Your task to perform on an android device: turn off priority inbox in the gmail app Image 0: 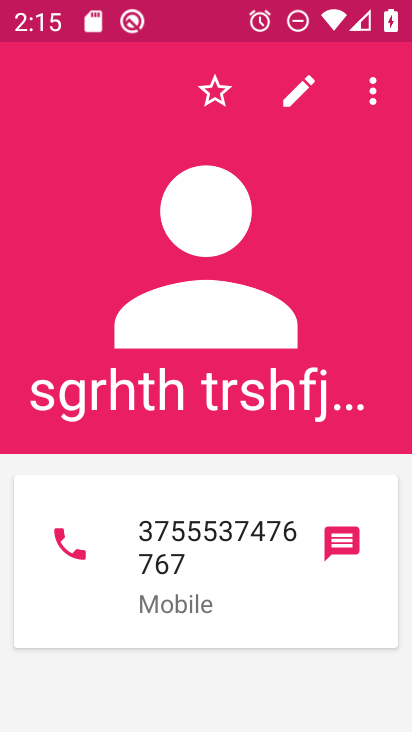
Step 0: press home button
Your task to perform on an android device: turn off priority inbox in the gmail app Image 1: 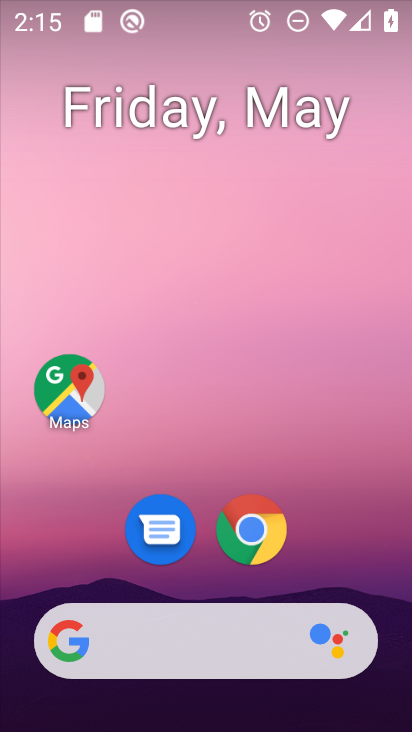
Step 1: drag from (381, 648) to (343, 194)
Your task to perform on an android device: turn off priority inbox in the gmail app Image 2: 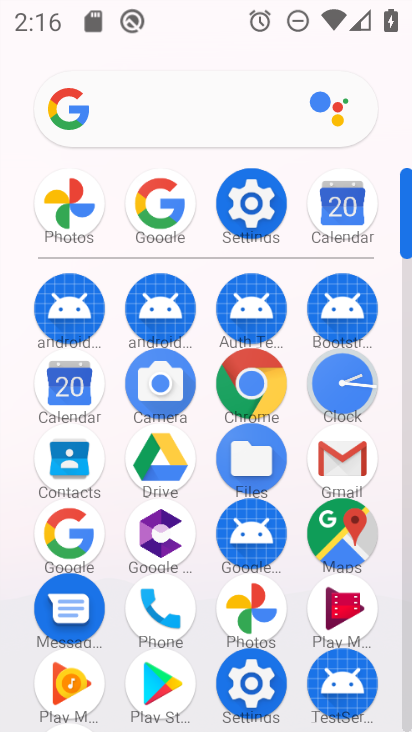
Step 2: click (332, 453)
Your task to perform on an android device: turn off priority inbox in the gmail app Image 3: 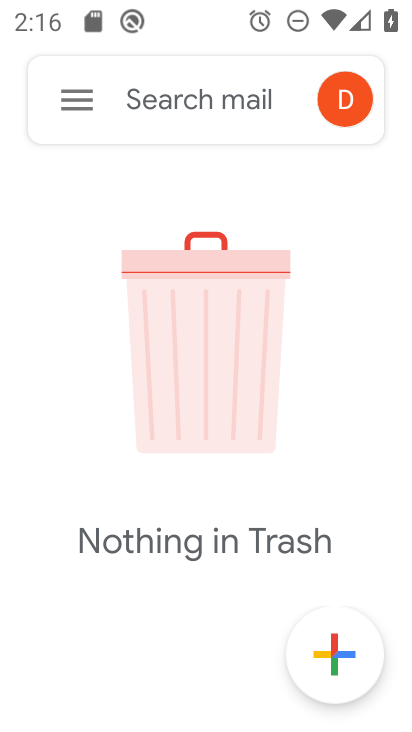
Step 3: click (56, 100)
Your task to perform on an android device: turn off priority inbox in the gmail app Image 4: 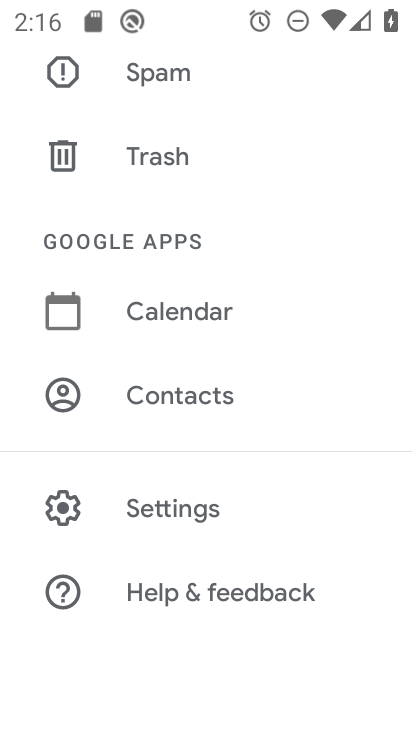
Step 4: drag from (330, 119) to (373, 496)
Your task to perform on an android device: turn off priority inbox in the gmail app Image 5: 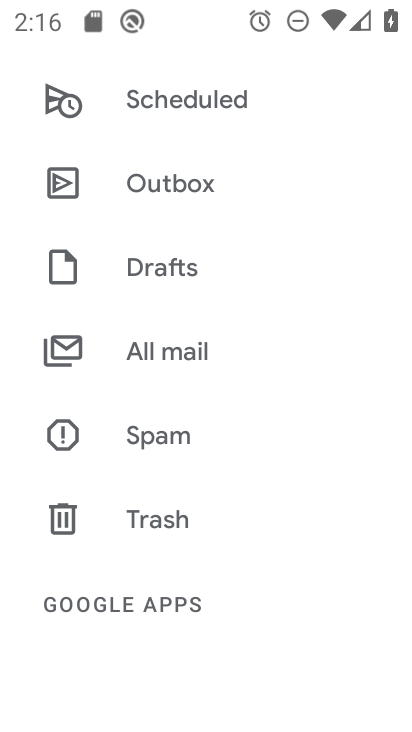
Step 5: drag from (299, 180) to (330, 555)
Your task to perform on an android device: turn off priority inbox in the gmail app Image 6: 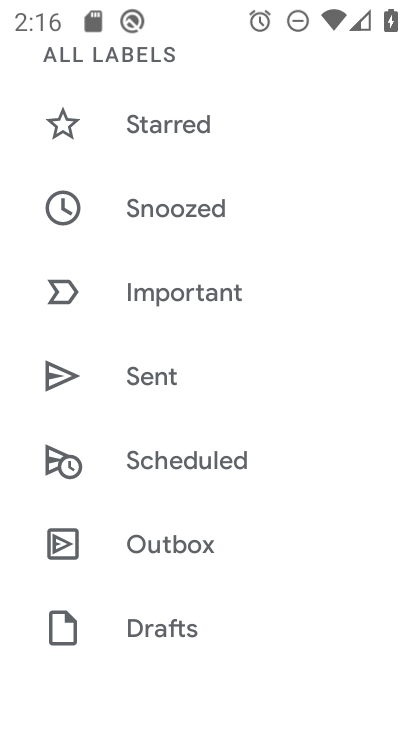
Step 6: drag from (309, 186) to (322, 620)
Your task to perform on an android device: turn off priority inbox in the gmail app Image 7: 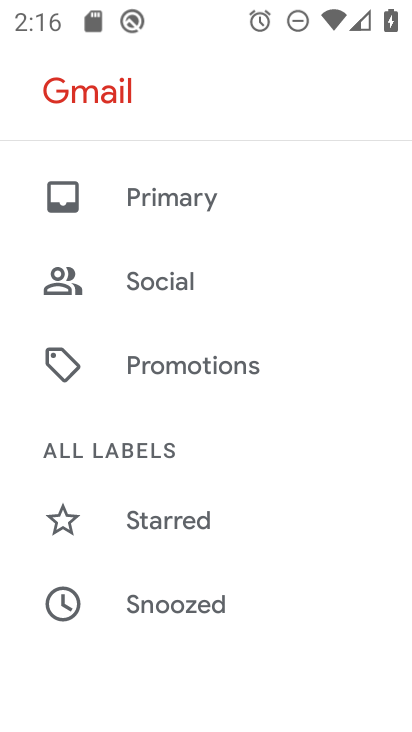
Step 7: drag from (325, 672) to (269, 276)
Your task to perform on an android device: turn off priority inbox in the gmail app Image 8: 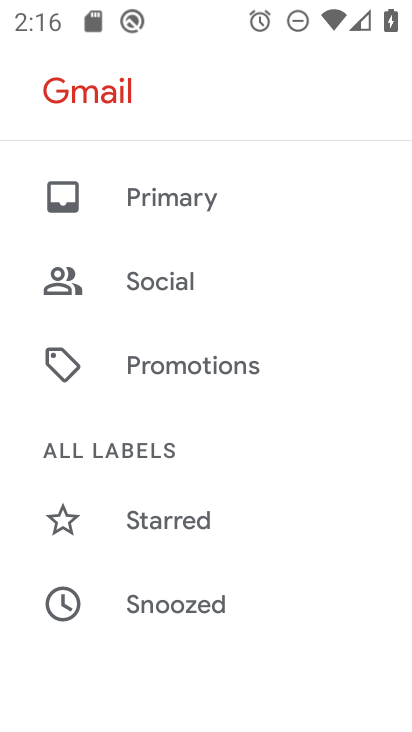
Step 8: drag from (312, 638) to (296, 194)
Your task to perform on an android device: turn off priority inbox in the gmail app Image 9: 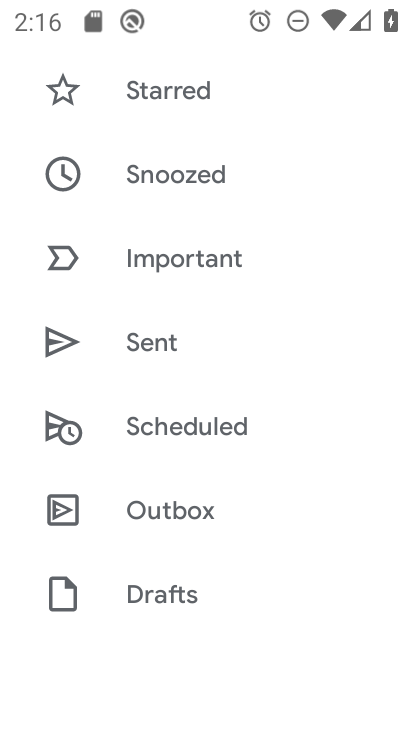
Step 9: drag from (292, 634) to (300, 140)
Your task to perform on an android device: turn off priority inbox in the gmail app Image 10: 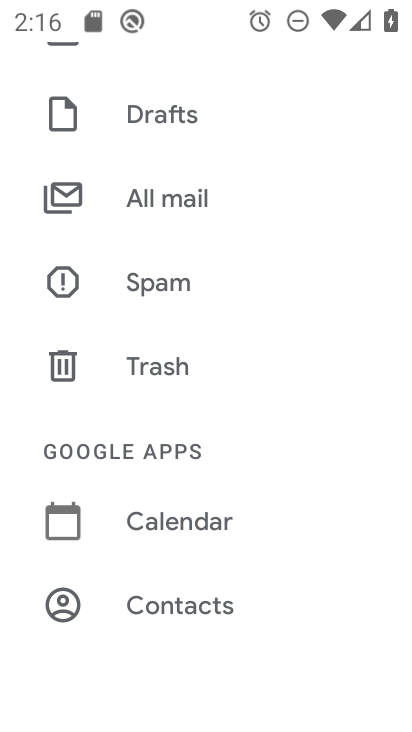
Step 10: drag from (287, 621) to (282, 288)
Your task to perform on an android device: turn off priority inbox in the gmail app Image 11: 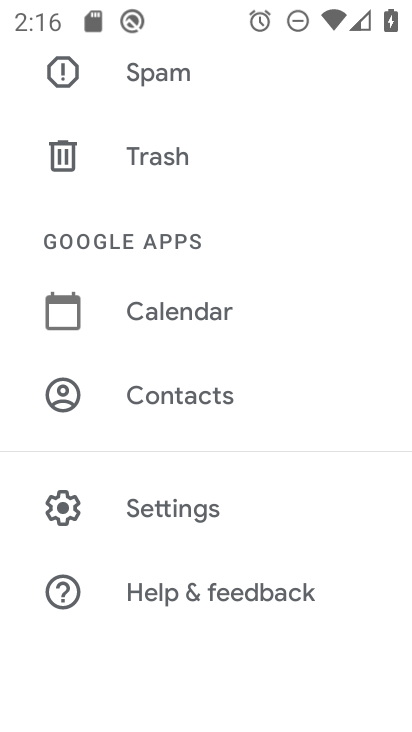
Step 11: click (165, 513)
Your task to perform on an android device: turn off priority inbox in the gmail app Image 12: 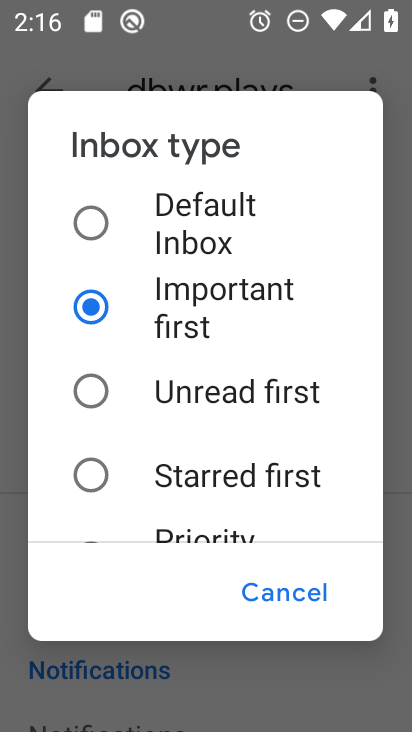
Step 12: click (102, 224)
Your task to perform on an android device: turn off priority inbox in the gmail app Image 13: 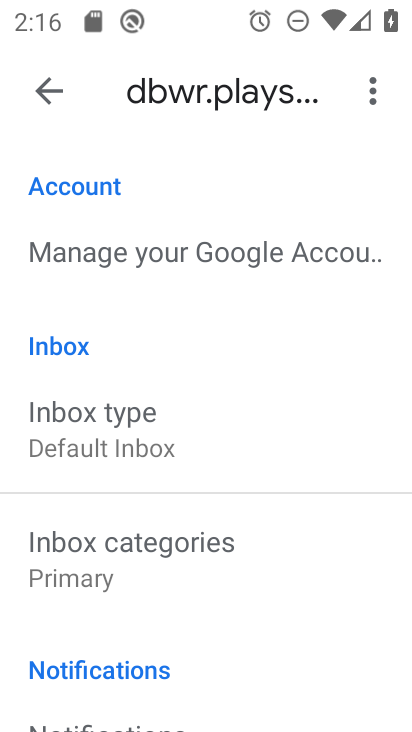
Step 13: task complete